Your task to perform on an android device: Open Chrome and go to settings Image 0: 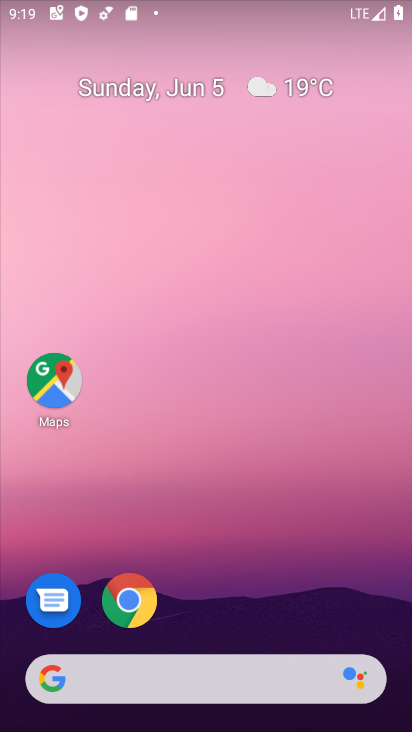
Step 0: click (154, 606)
Your task to perform on an android device: Open Chrome and go to settings Image 1: 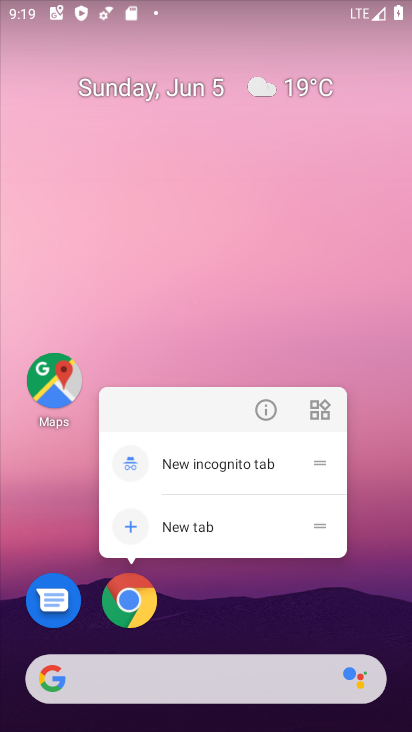
Step 1: click (141, 611)
Your task to perform on an android device: Open Chrome and go to settings Image 2: 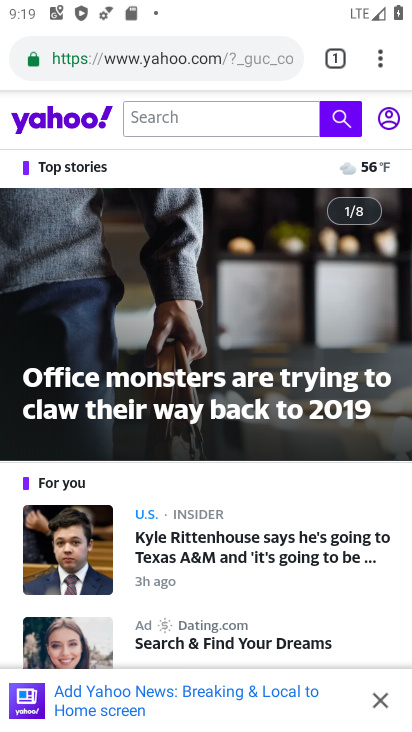
Step 2: click (378, 82)
Your task to perform on an android device: Open Chrome and go to settings Image 3: 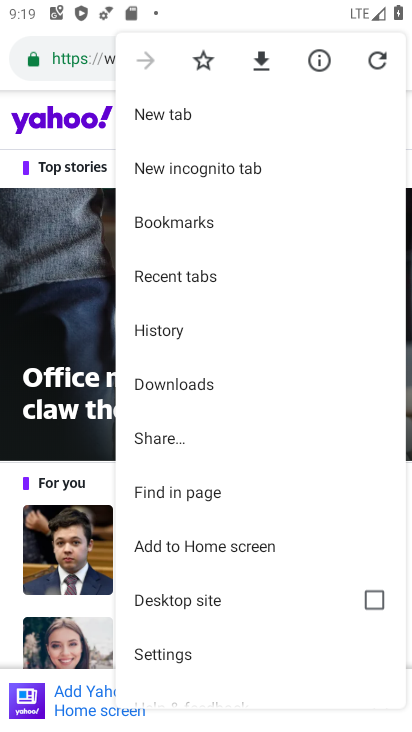
Step 3: click (229, 658)
Your task to perform on an android device: Open Chrome and go to settings Image 4: 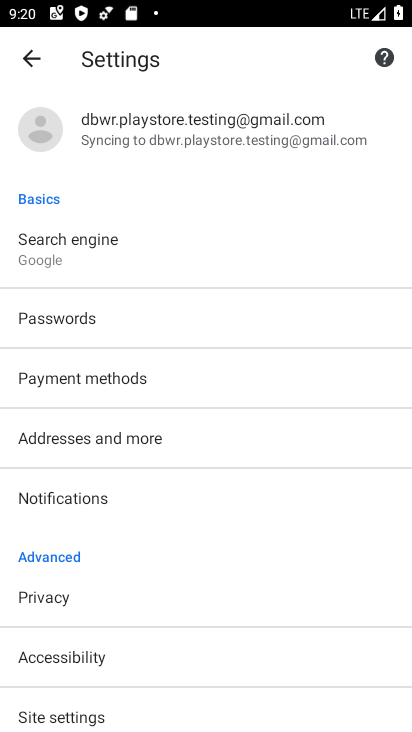
Step 4: task complete